Your task to perform on an android device: open the mobile data screen to see how much data has been used Image 0: 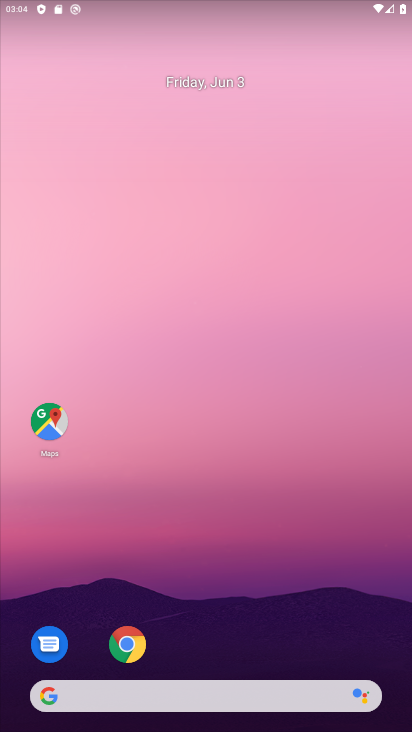
Step 0: drag from (270, 661) to (232, 244)
Your task to perform on an android device: open the mobile data screen to see how much data has been used Image 1: 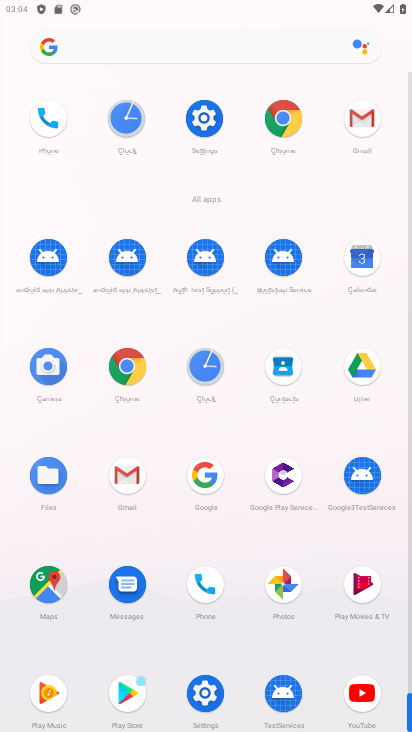
Step 1: drag from (398, 3) to (410, 578)
Your task to perform on an android device: open the mobile data screen to see how much data has been used Image 2: 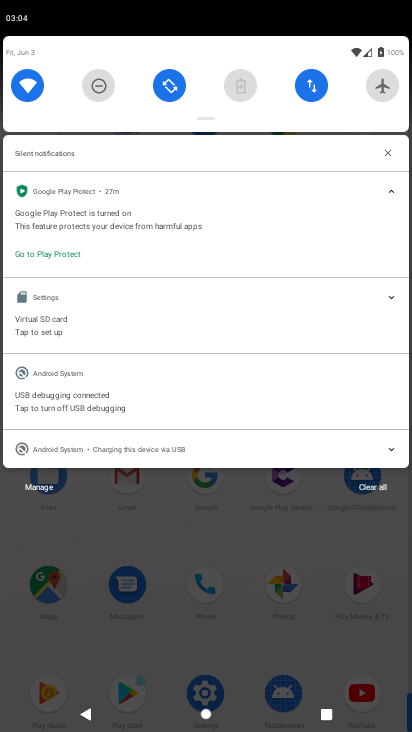
Step 2: click (305, 87)
Your task to perform on an android device: open the mobile data screen to see how much data has been used Image 3: 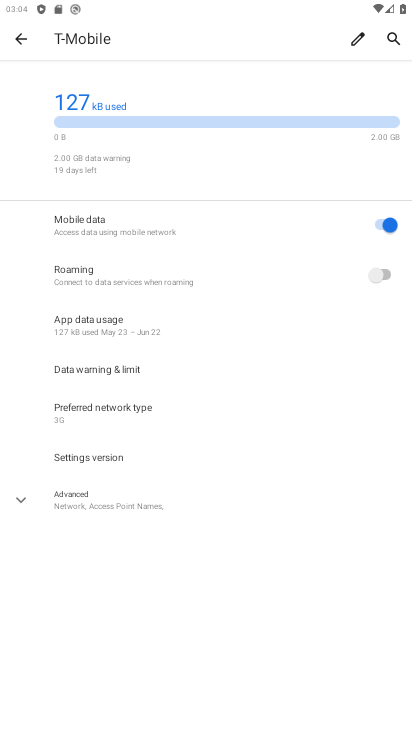
Step 3: task complete